Your task to perform on an android device: Open Youtube and go to "Your channel" Image 0: 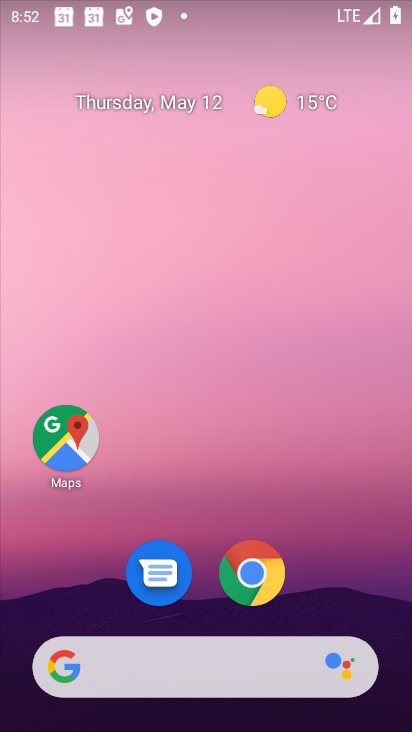
Step 0: drag from (348, 545) to (147, 85)
Your task to perform on an android device: Open Youtube and go to "Your channel" Image 1: 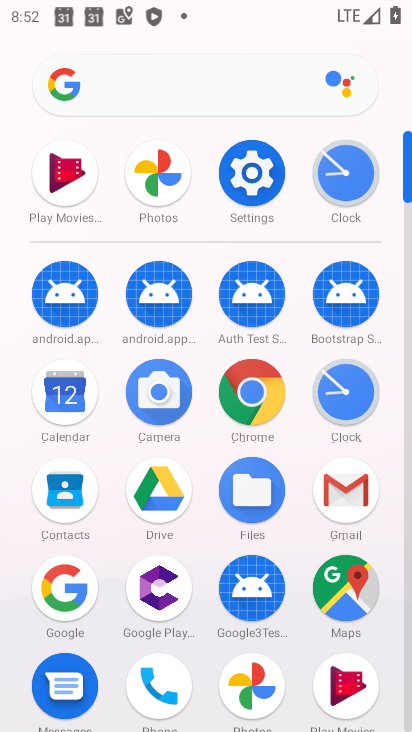
Step 1: click (405, 688)
Your task to perform on an android device: Open Youtube and go to "Your channel" Image 2: 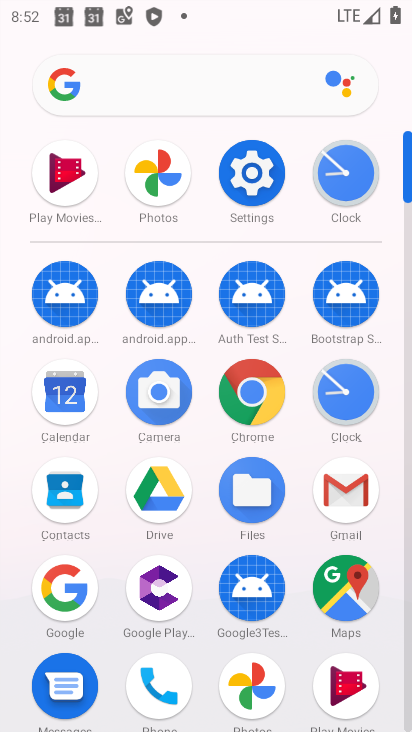
Step 2: click (405, 688)
Your task to perform on an android device: Open Youtube and go to "Your channel" Image 3: 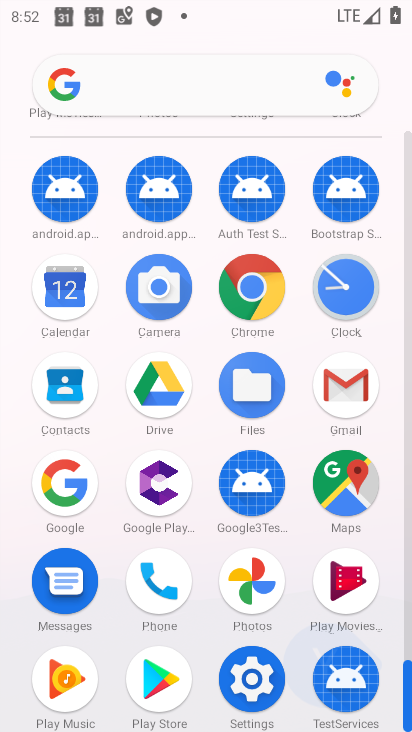
Step 3: click (405, 688)
Your task to perform on an android device: Open Youtube and go to "Your channel" Image 4: 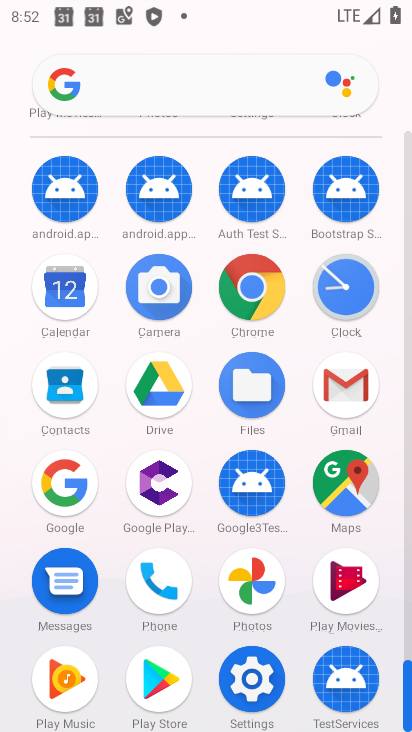
Step 4: click (405, 688)
Your task to perform on an android device: Open Youtube and go to "Your channel" Image 5: 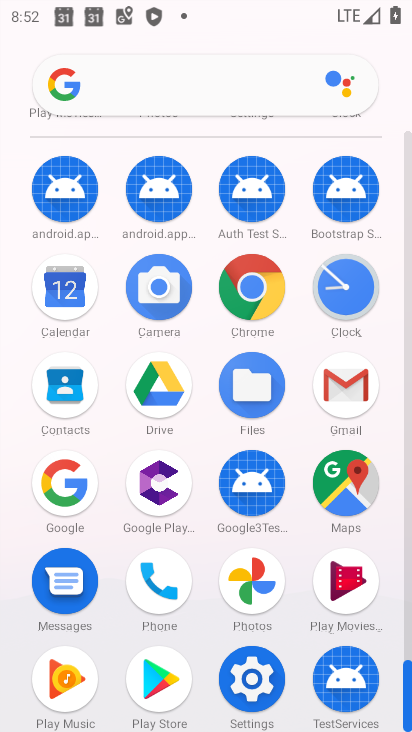
Step 5: click (405, 688)
Your task to perform on an android device: Open Youtube and go to "Your channel" Image 6: 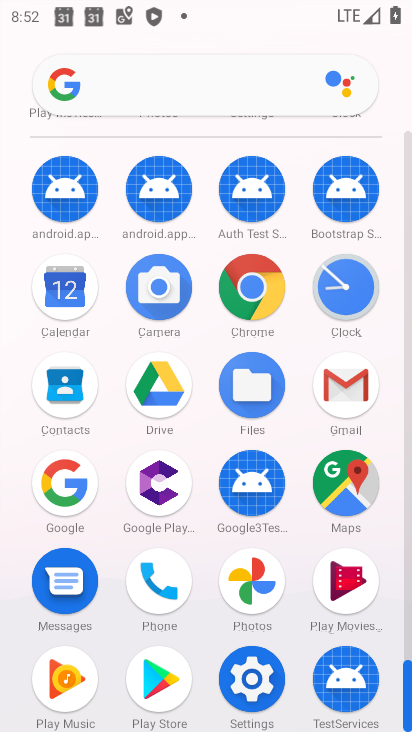
Step 6: drag from (205, 642) to (133, 263)
Your task to perform on an android device: Open Youtube and go to "Your channel" Image 7: 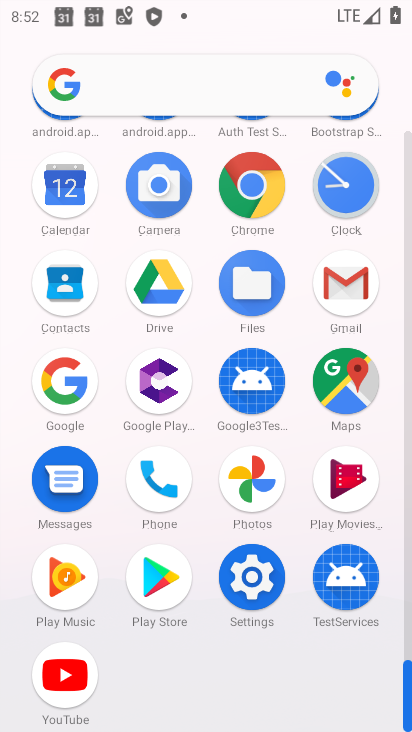
Step 7: click (60, 665)
Your task to perform on an android device: Open Youtube and go to "Your channel" Image 8: 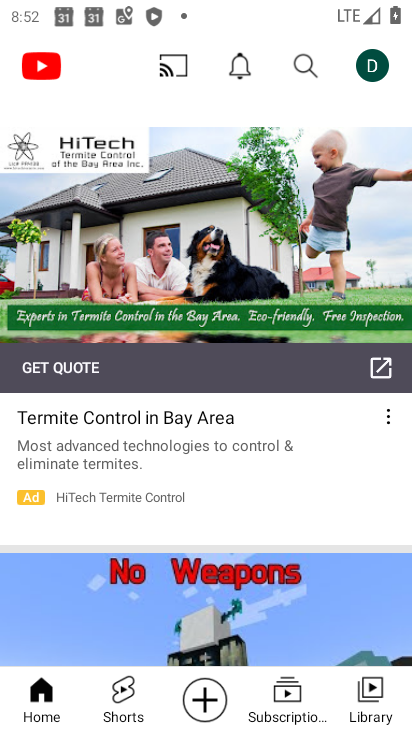
Step 8: click (374, 69)
Your task to perform on an android device: Open Youtube and go to "Your channel" Image 9: 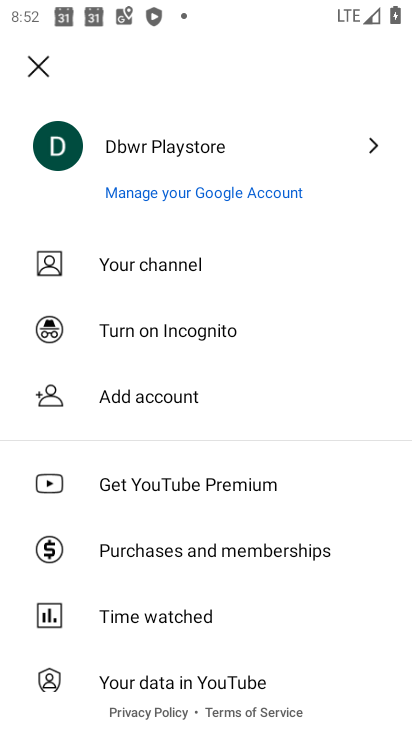
Step 9: click (118, 278)
Your task to perform on an android device: Open Youtube and go to "Your channel" Image 10: 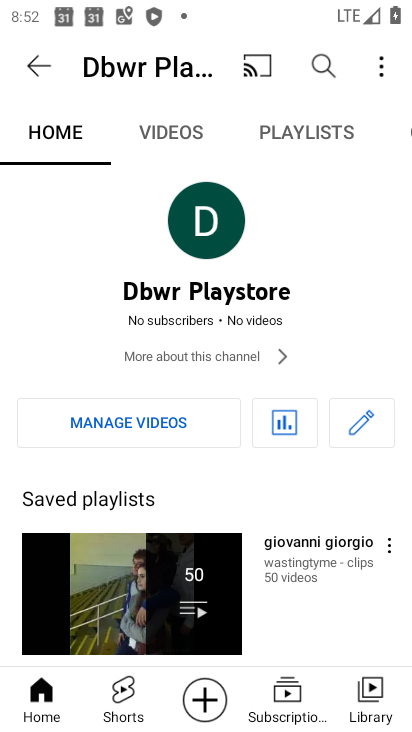
Step 10: task complete